Your task to perform on an android device: Open Youtube and go to "Your channel" Image 0: 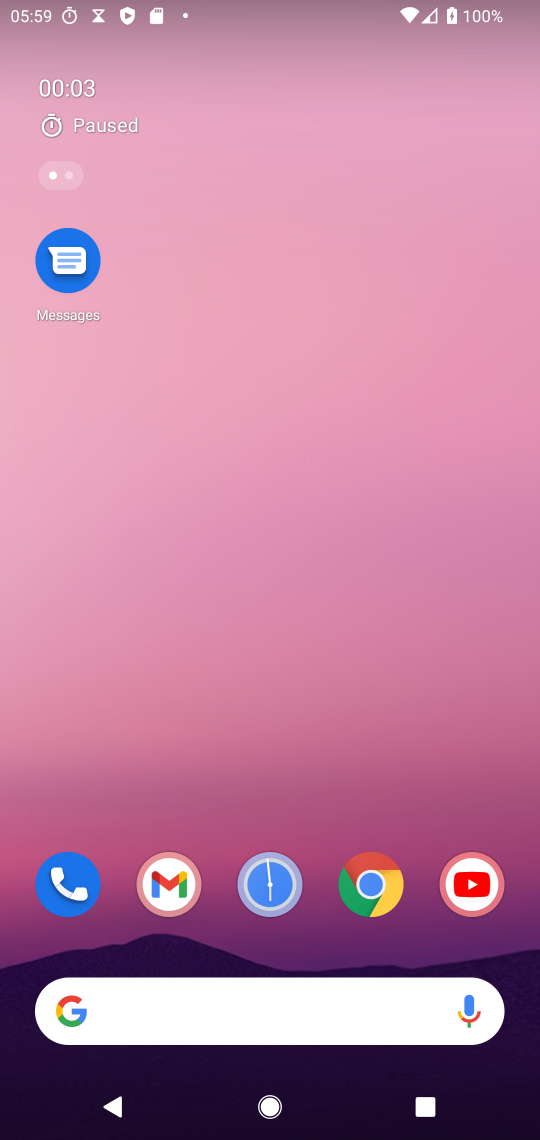
Step 0: click (471, 871)
Your task to perform on an android device: Open Youtube and go to "Your channel" Image 1: 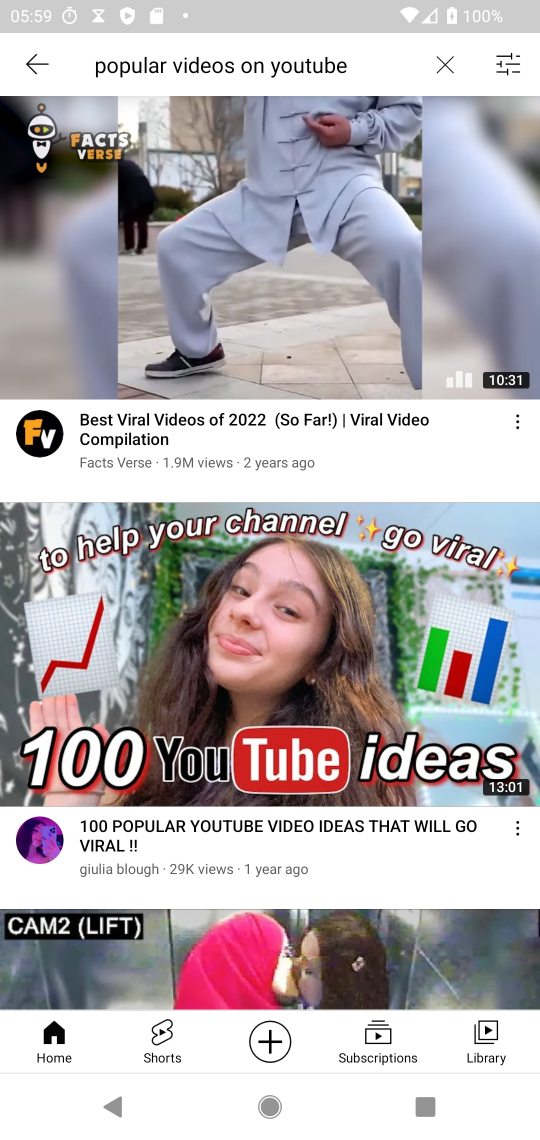
Step 1: click (483, 1027)
Your task to perform on an android device: Open Youtube and go to "Your channel" Image 2: 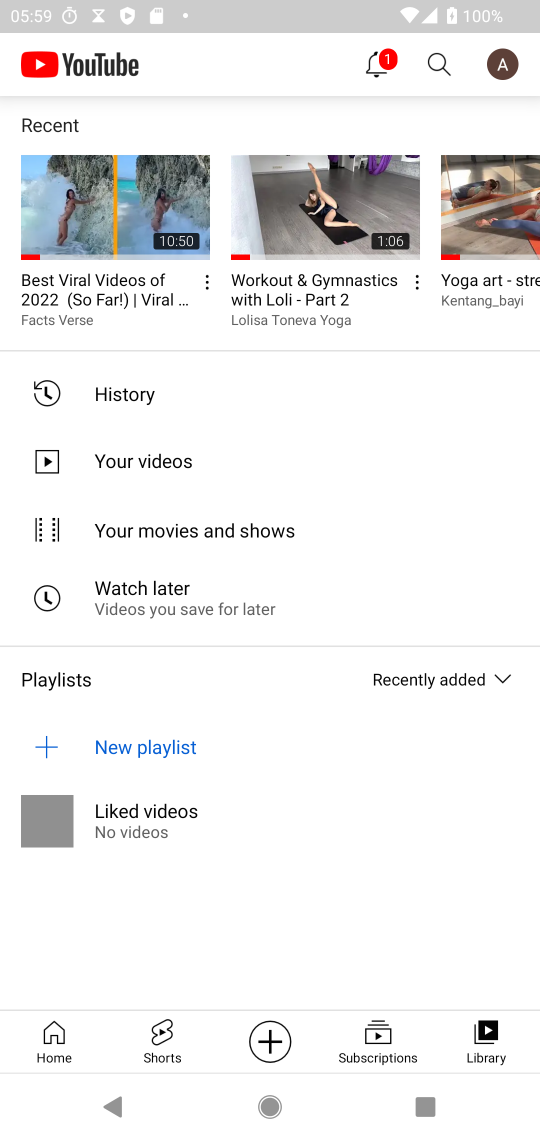
Step 2: task complete